Your task to perform on an android device: Go to eBay Image 0: 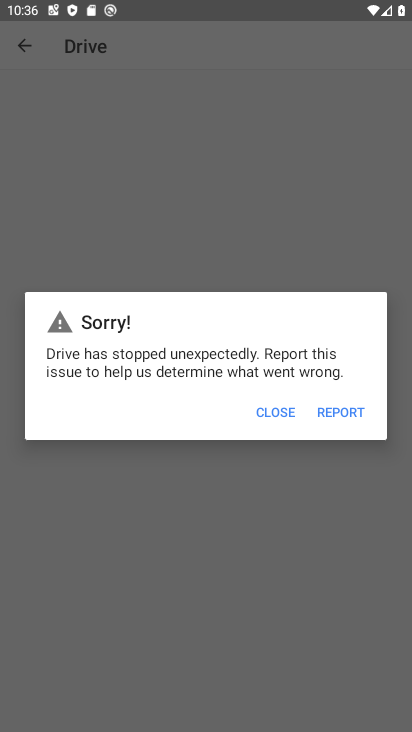
Step 0: press home button
Your task to perform on an android device: Go to eBay Image 1: 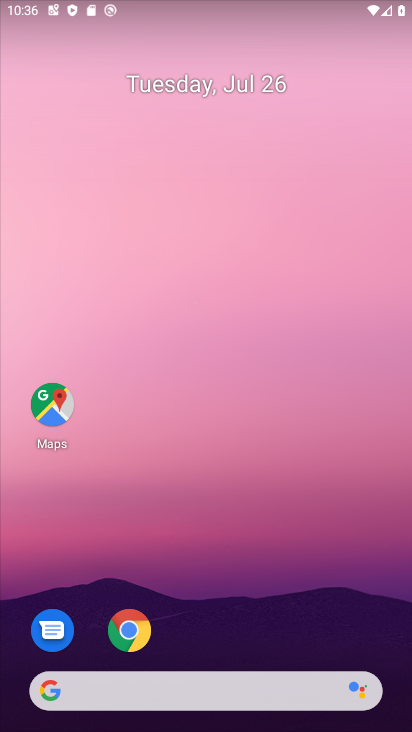
Step 1: click (126, 630)
Your task to perform on an android device: Go to eBay Image 2: 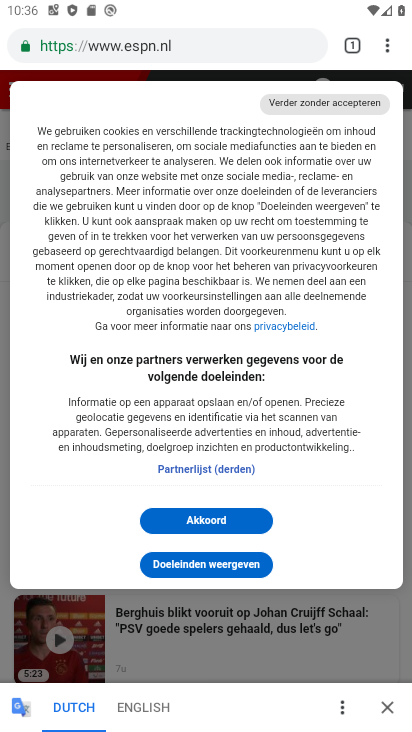
Step 2: click (149, 47)
Your task to perform on an android device: Go to eBay Image 3: 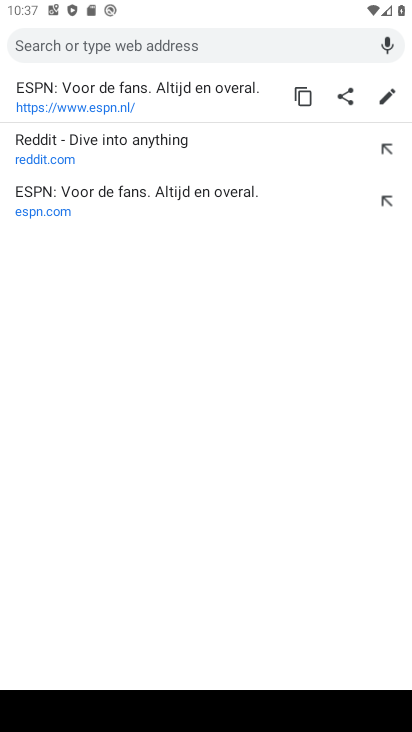
Step 3: type "www.ebay.com"
Your task to perform on an android device: Go to eBay Image 4: 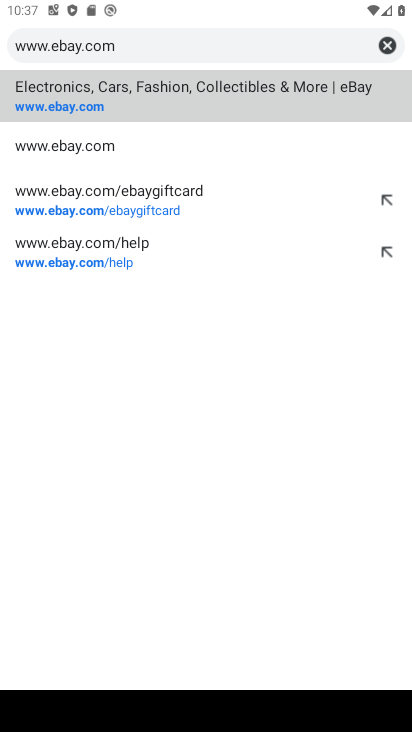
Step 4: click (184, 97)
Your task to perform on an android device: Go to eBay Image 5: 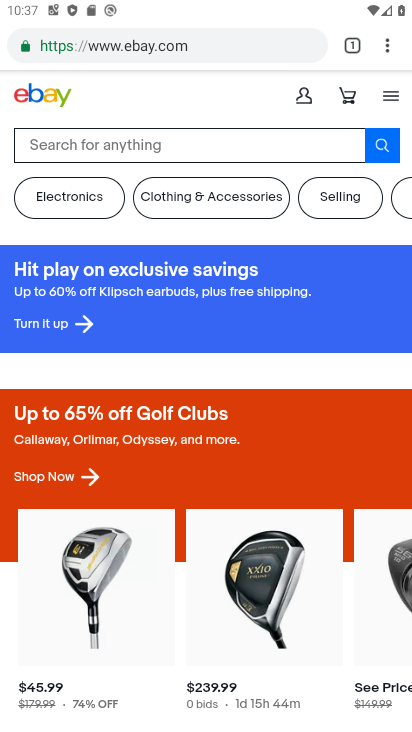
Step 5: task complete